Your task to perform on an android device: see creations saved in the google photos Image 0: 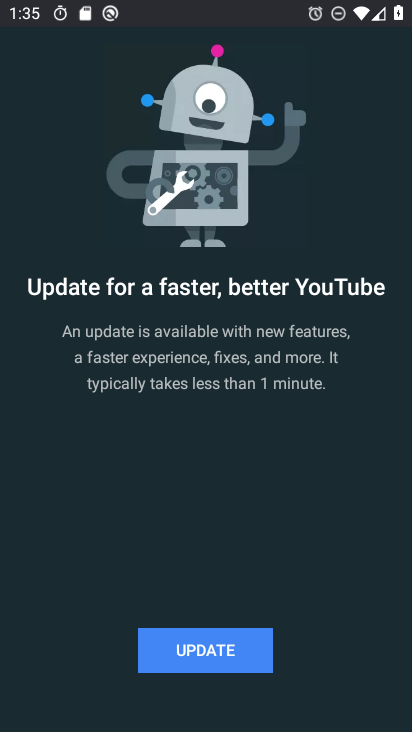
Step 0: press home button
Your task to perform on an android device: see creations saved in the google photos Image 1: 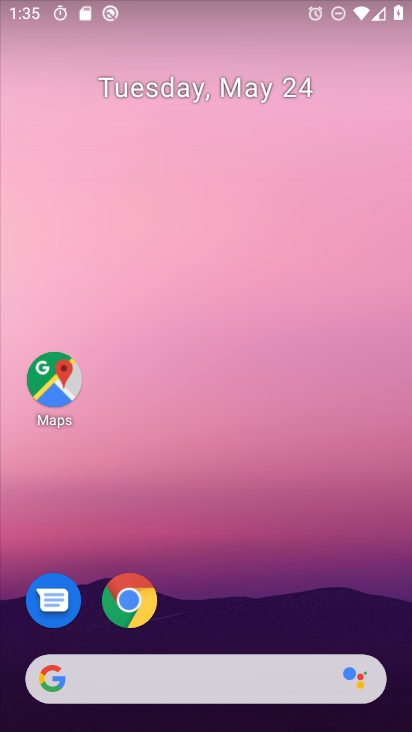
Step 1: drag from (238, 555) to (194, 148)
Your task to perform on an android device: see creations saved in the google photos Image 2: 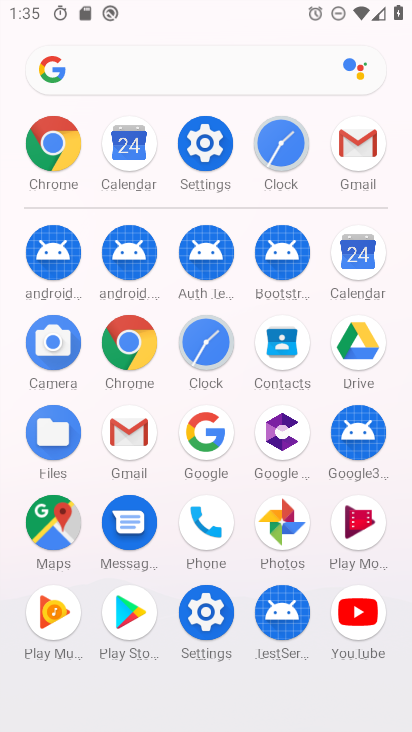
Step 2: click (275, 525)
Your task to perform on an android device: see creations saved in the google photos Image 3: 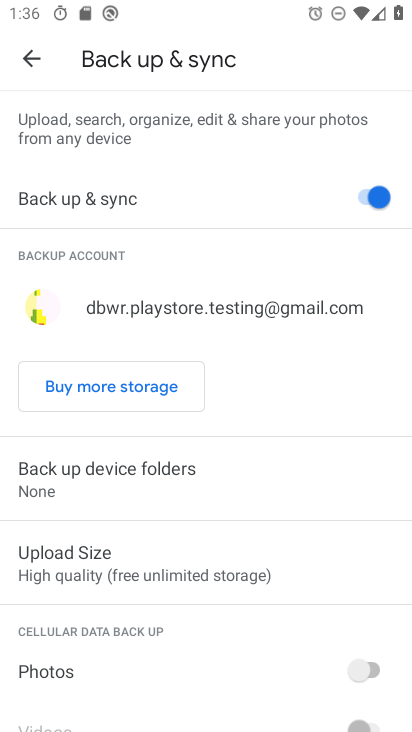
Step 3: press home button
Your task to perform on an android device: see creations saved in the google photos Image 4: 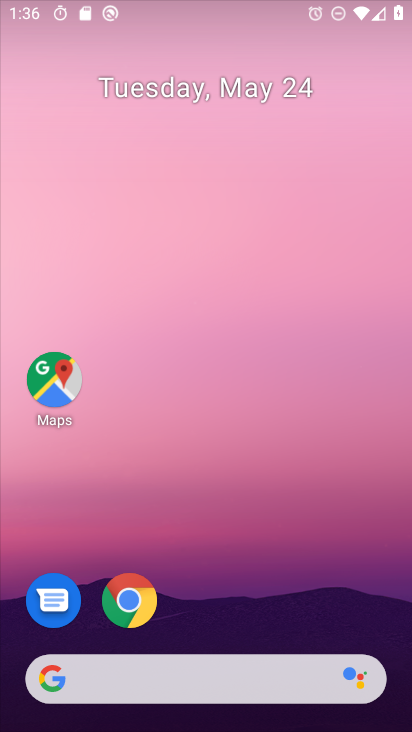
Step 4: drag from (282, 580) to (248, 122)
Your task to perform on an android device: see creations saved in the google photos Image 5: 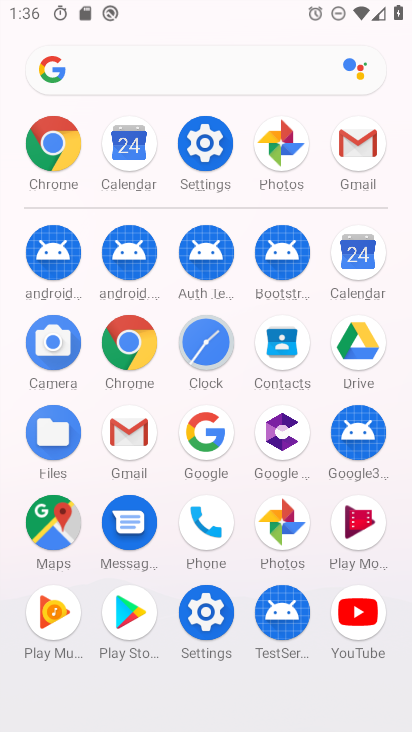
Step 5: click (299, 514)
Your task to perform on an android device: see creations saved in the google photos Image 6: 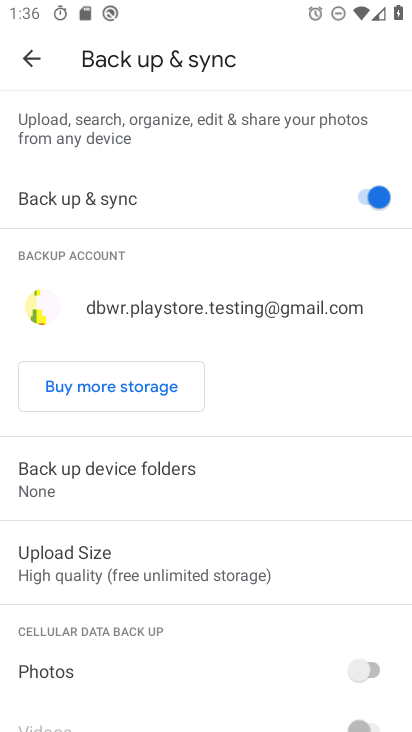
Step 6: click (52, 69)
Your task to perform on an android device: see creations saved in the google photos Image 7: 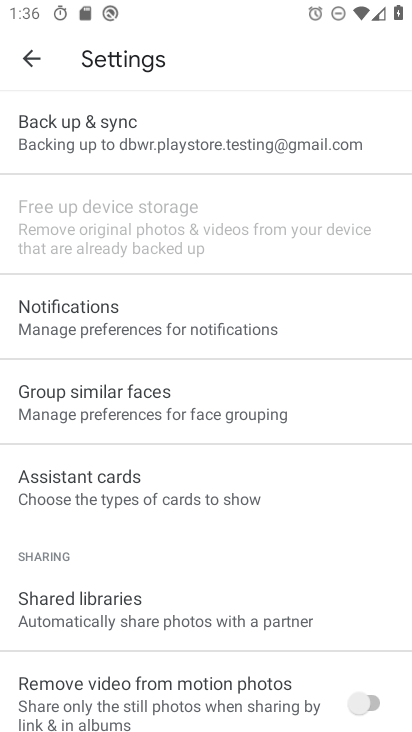
Step 7: click (24, 46)
Your task to perform on an android device: see creations saved in the google photos Image 8: 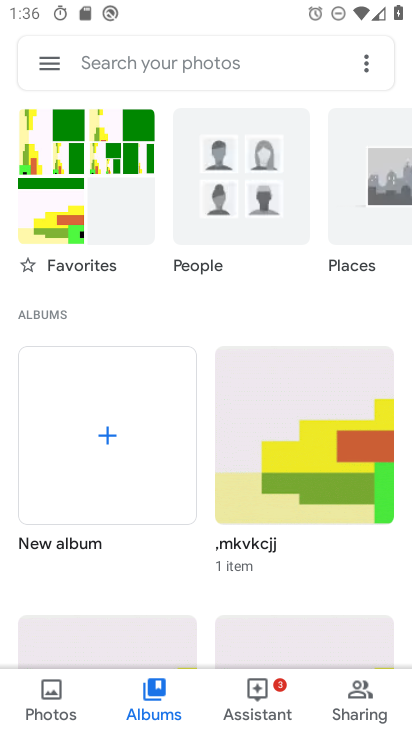
Step 8: task complete